Your task to perform on an android device: check data usage Image 0: 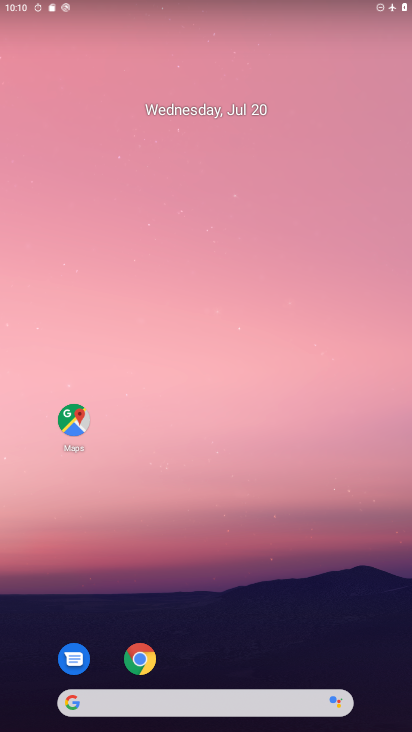
Step 0: drag from (328, 613) to (196, 105)
Your task to perform on an android device: check data usage Image 1: 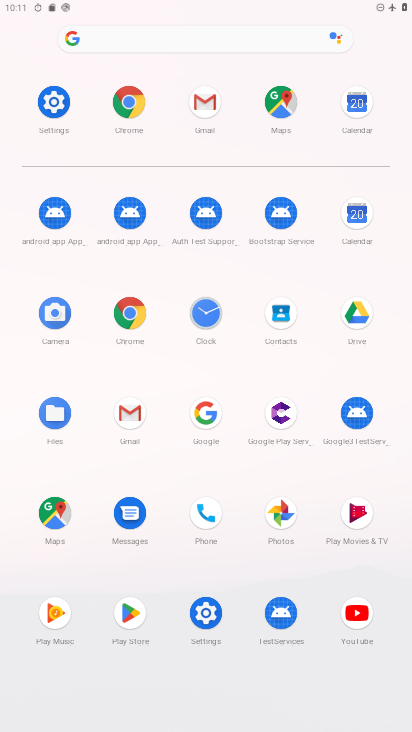
Step 1: click (72, 119)
Your task to perform on an android device: check data usage Image 2: 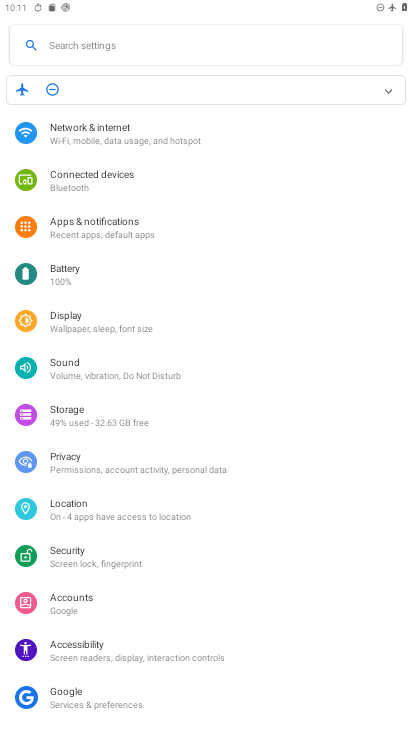
Step 2: click (129, 125)
Your task to perform on an android device: check data usage Image 3: 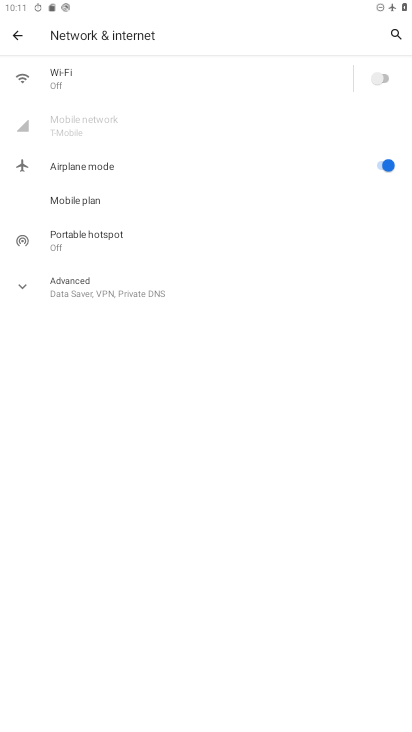
Step 3: click (128, 283)
Your task to perform on an android device: check data usage Image 4: 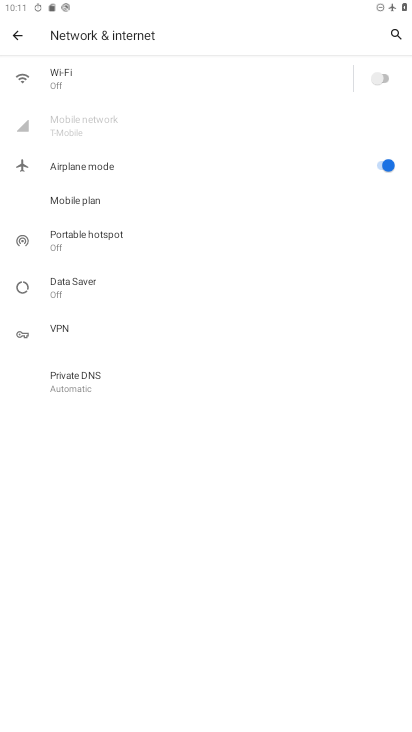
Step 4: click (138, 66)
Your task to perform on an android device: check data usage Image 5: 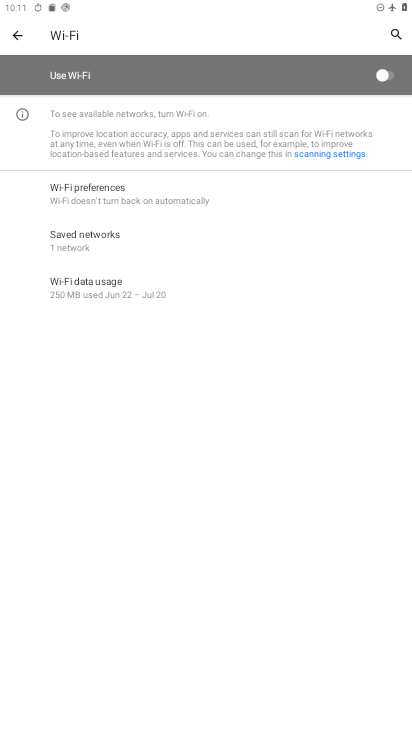
Step 5: click (127, 284)
Your task to perform on an android device: check data usage Image 6: 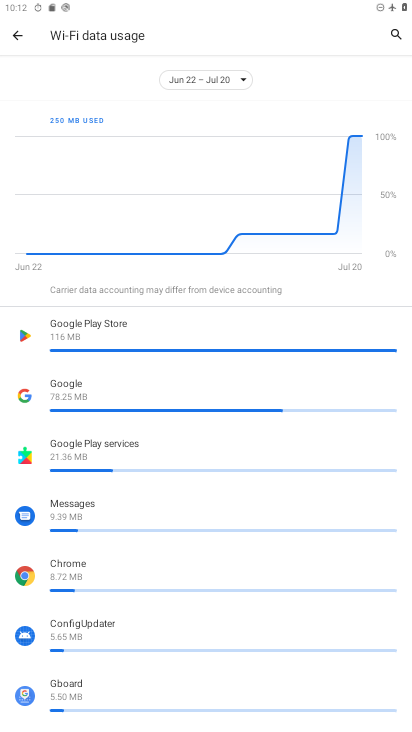
Step 6: task complete